Your task to perform on an android device: Open calendar and show me the second week of next month Image 0: 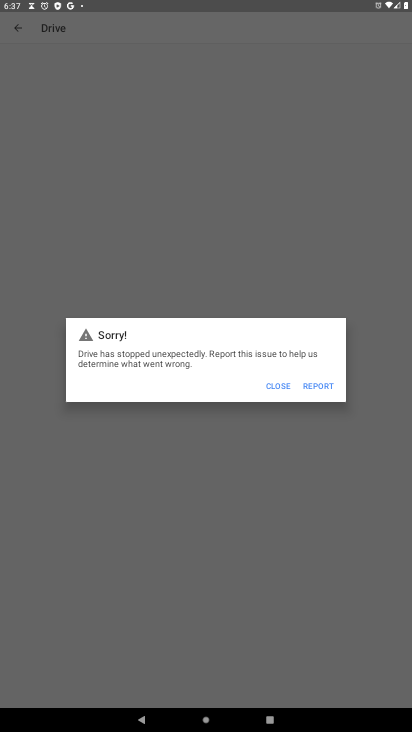
Step 0: press home button
Your task to perform on an android device: Open calendar and show me the second week of next month Image 1: 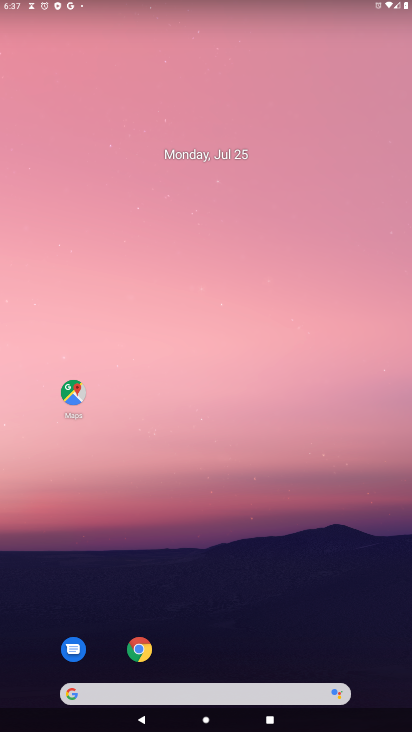
Step 1: click (311, 74)
Your task to perform on an android device: Open calendar and show me the second week of next month Image 2: 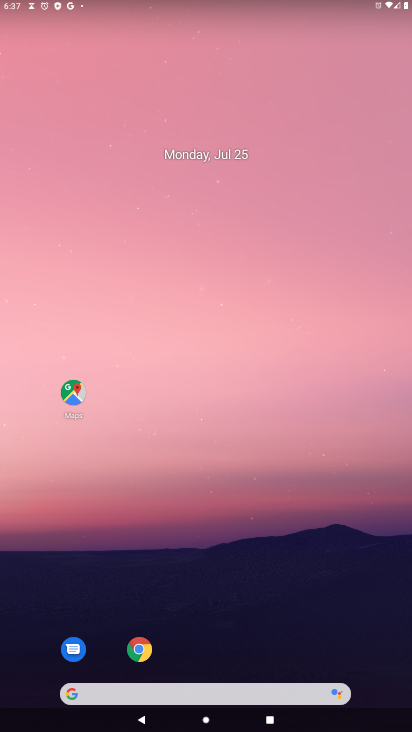
Step 2: drag from (252, 679) to (322, 17)
Your task to perform on an android device: Open calendar and show me the second week of next month Image 3: 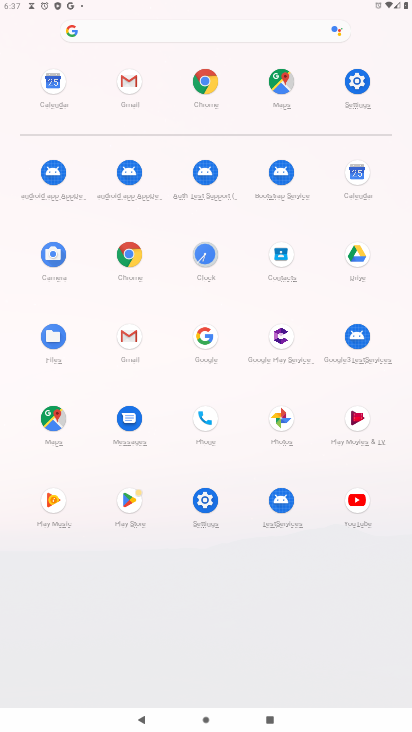
Step 3: click (351, 170)
Your task to perform on an android device: Open calendar and show me the second week of next month Image 4: 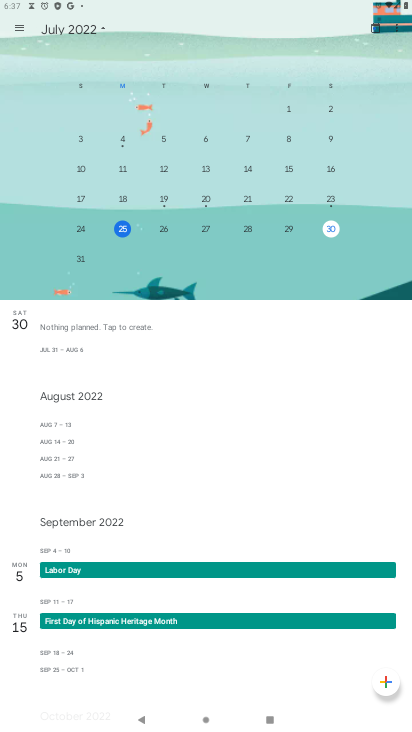
Step 4: drag from (351, 165) to (37, 248)
Your task to perform on an android device: Open calendar and show me the second week of next month Image 5: 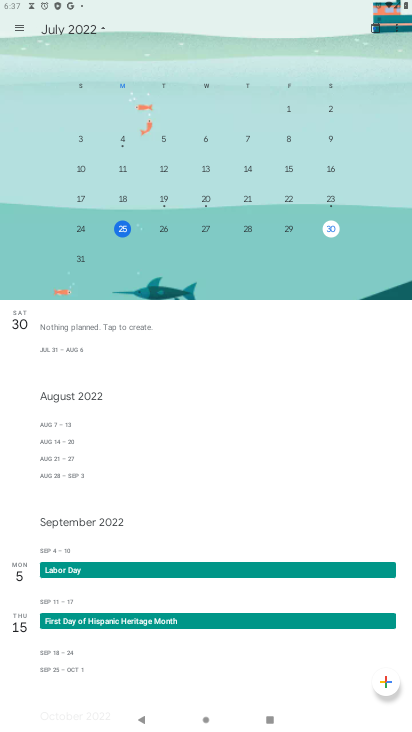
Step 5: drag from (360, 166) to (21, 223)
Your task to perform on an android device: Open calendar and show me the second week of next month Image 6: 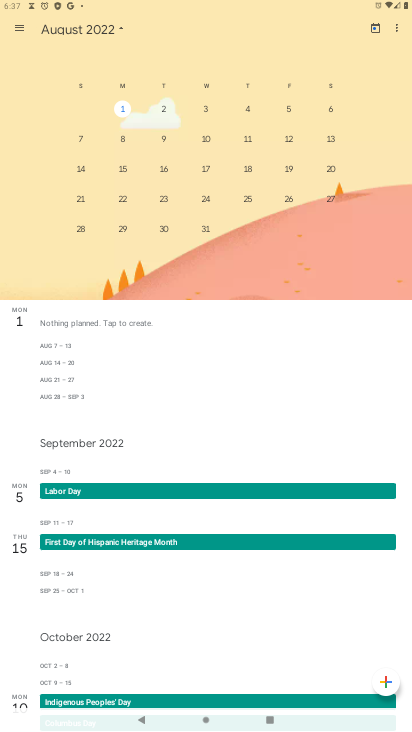
Step 6: click (208, 140)
Your task to perform on an android device: Open calendar and show me the second week of next month Image 7: 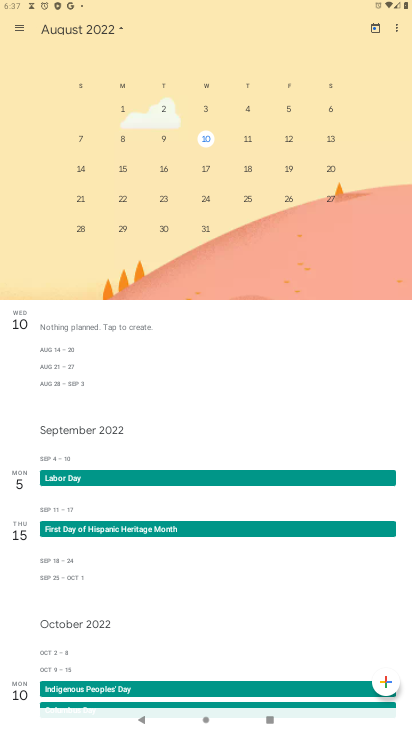
Step 7: task complete